Your task to perform on an android device: Open wifi settings Image 0: 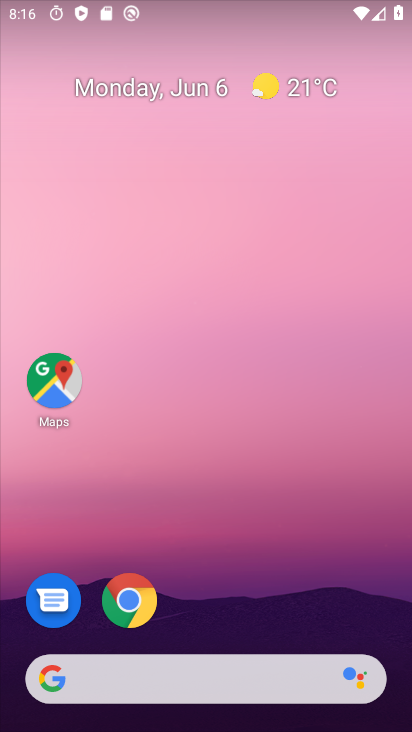
Step 0: drag from (240, 597) to (194, 83)
Your task to perform on an android device: Open wifi settings Image 1: 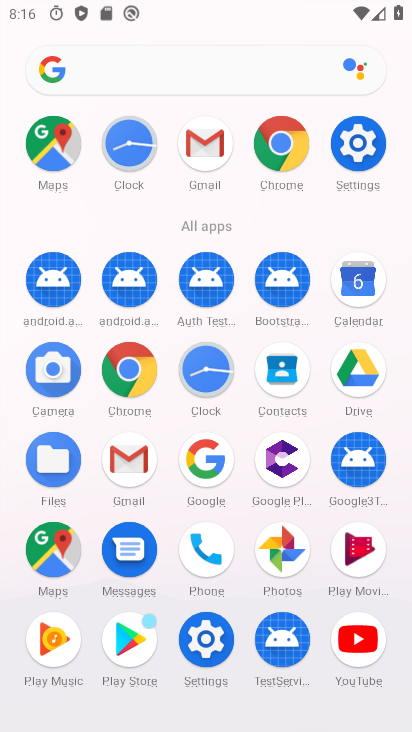
Step 1: drag from (0, 535) to (0, 261)
Your task to perform on an android device: Open wifi settings Image 2: 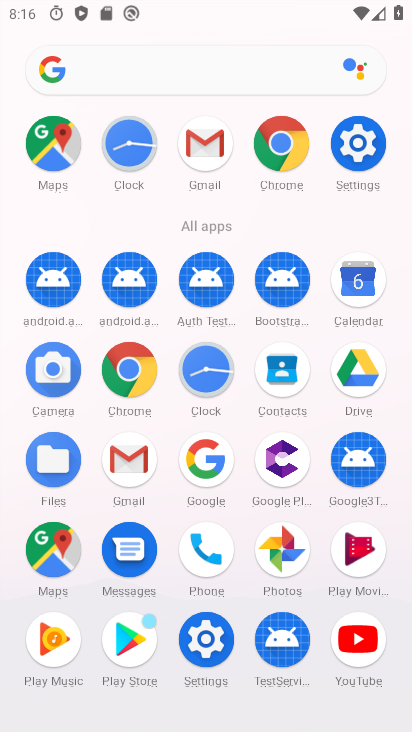
Step 2: click (206, 640)
Your task to perform on an android device: Open wifi settings Image 3: 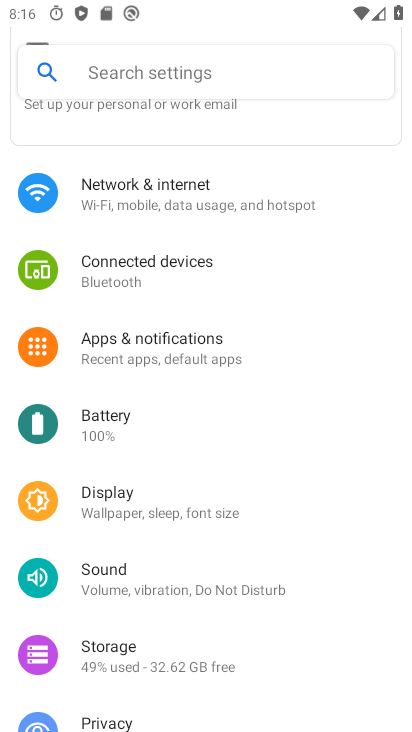
Step 3: click (191, 196)
Your task to perform on an android device: Open wifi settings Image 4: 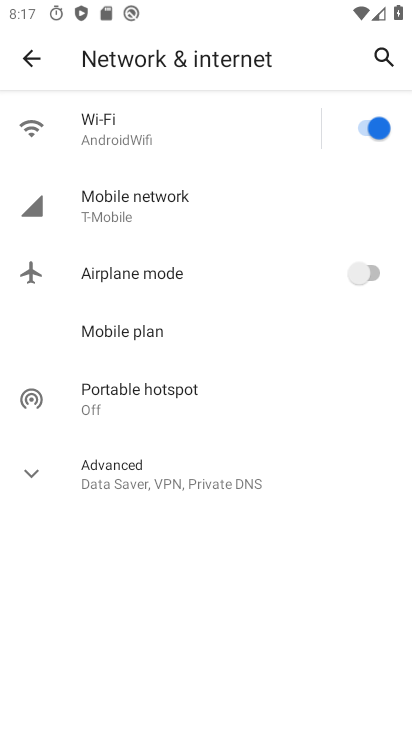
Step 4: click (134, 121)
Your task to perform on an android device: Open wifi settings Image 5: 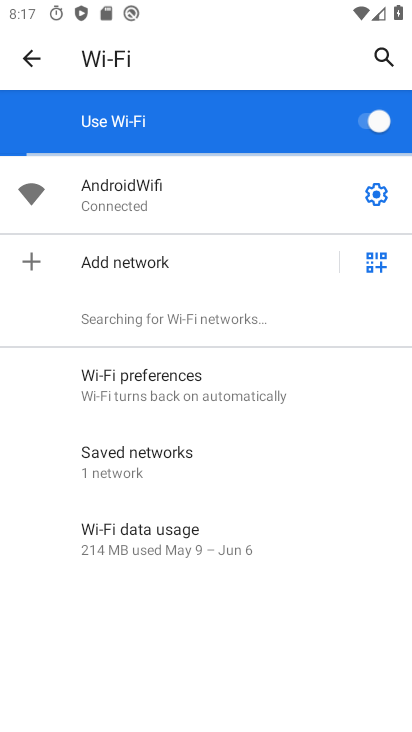
Step 5: task complete